Your task to perform on an android device: delete location history Image 0: 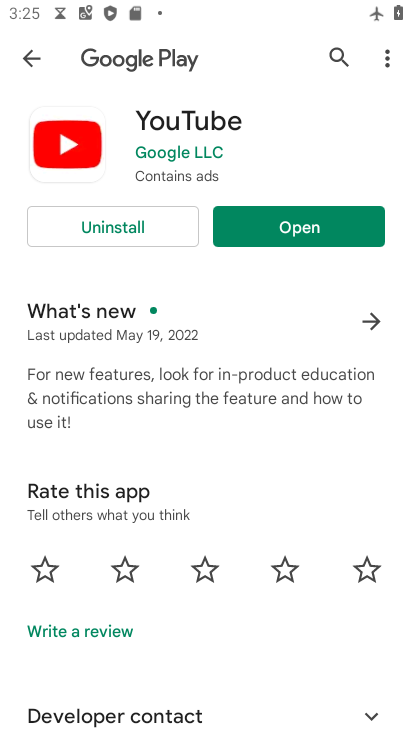
Step 0: press home button
Your task to perform on an android device: delete location history Image 1: 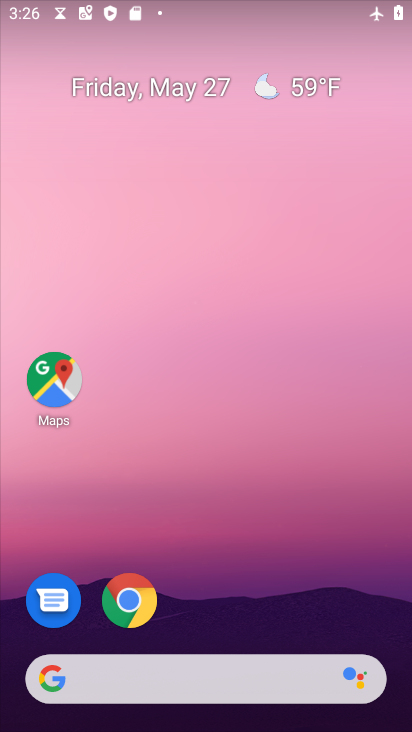
Step 1: click (55, 381)
Your task to perform on an android device: delete location history Image 2: 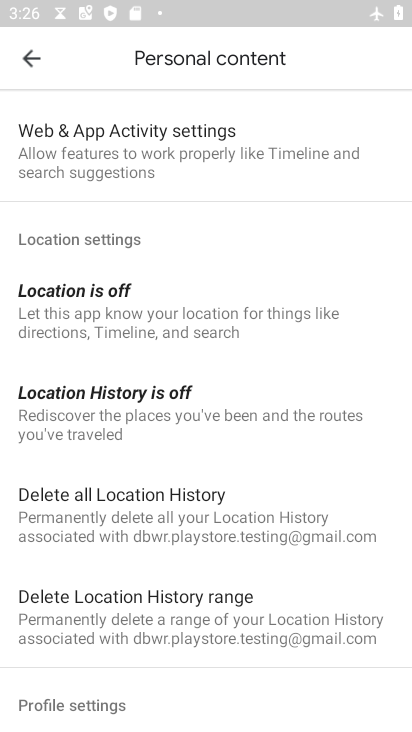
Step 2: click (112, 490)
Your task to perform on an android device: delete location history Image 3: 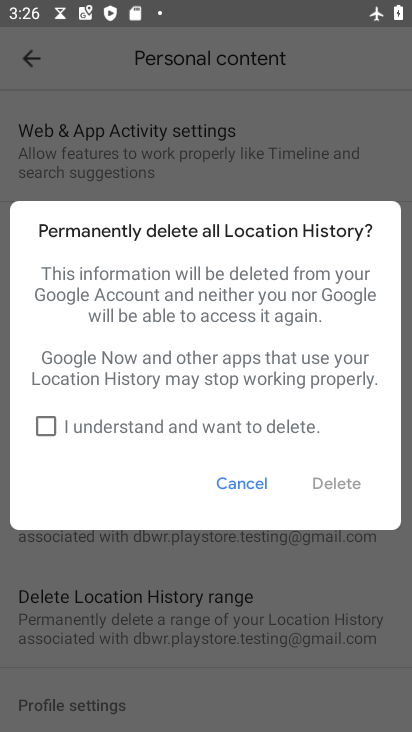
Step 3: click (47, 423)
Your task to perform on an android device: delete location history Image 4: 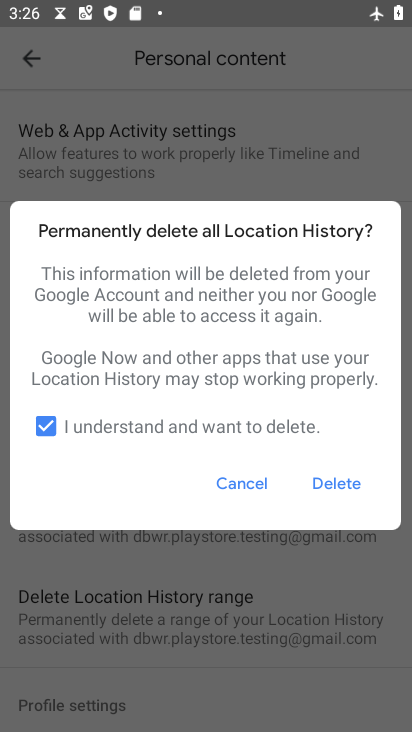
Step 4: click (333, 476)
Your task to perform on an android device: delete location history Image 5: 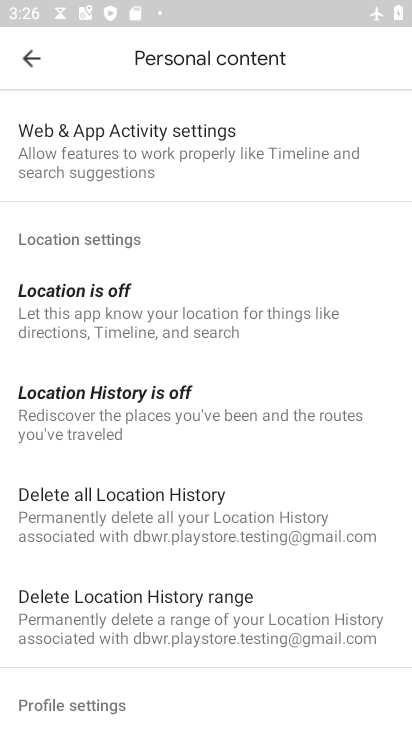
Step 5: task complete